Your task to perform on an android device: turn off improve location accuracy Image 0: 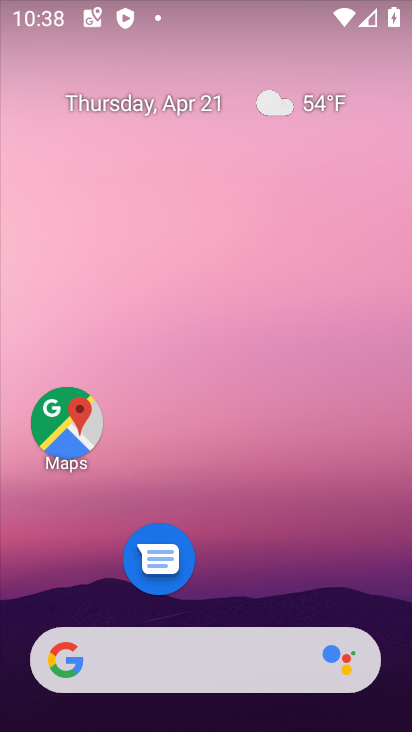
Step 0: drag from (283, 551) to (306, 92)
Your task to perform on an android device: turn off improve location accuracy Image 1: 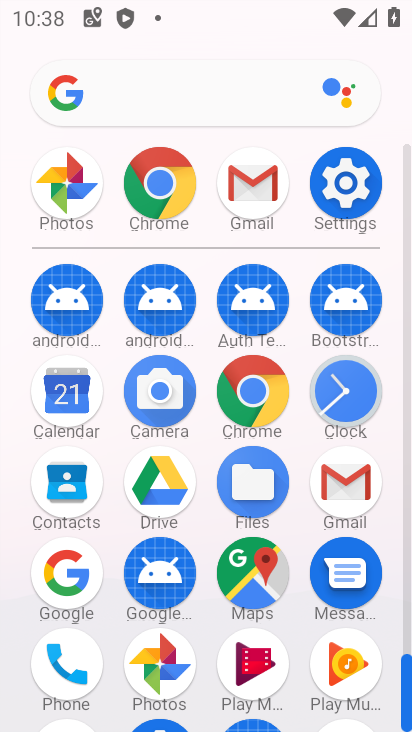
Step 1: click (333, 176)
Your task to perform on an android device: turn off improve location accuracy Image 2: 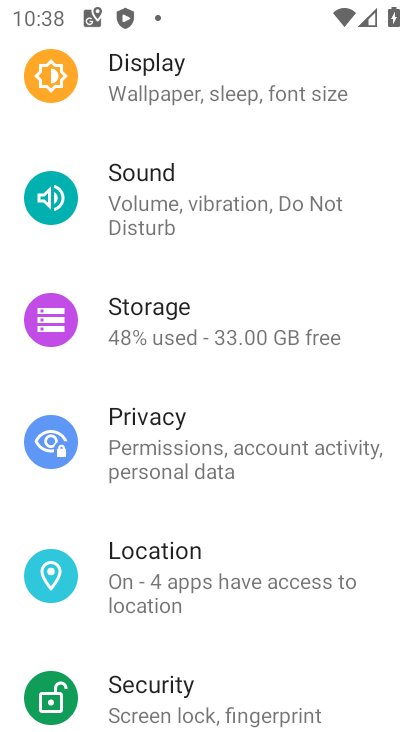
Step 2: click (194, 552)
Your task to perform on an android device: turn off improve location accuracy Image 3: 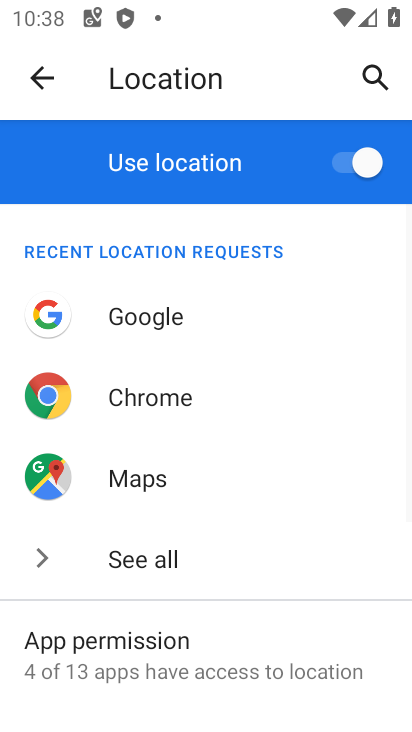
Step 3: drag from (168, 654) to (226, 202)
Your task to perform on an android device: turn off improve location accuracy Image 4: 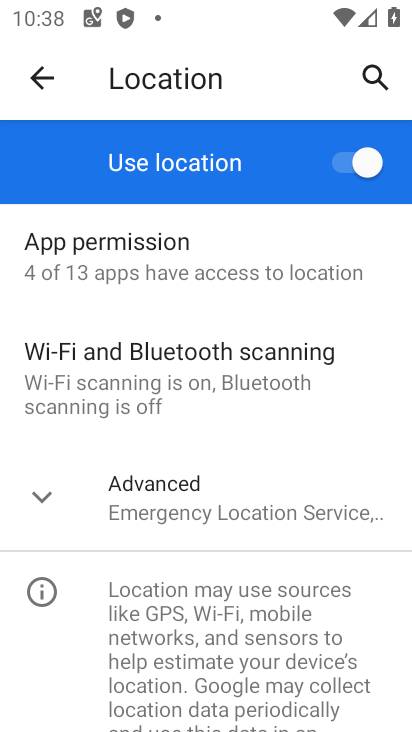
Step 4: click (229, 502)
Your task to perform on an android device: turn off improve location accuracy Image 5: 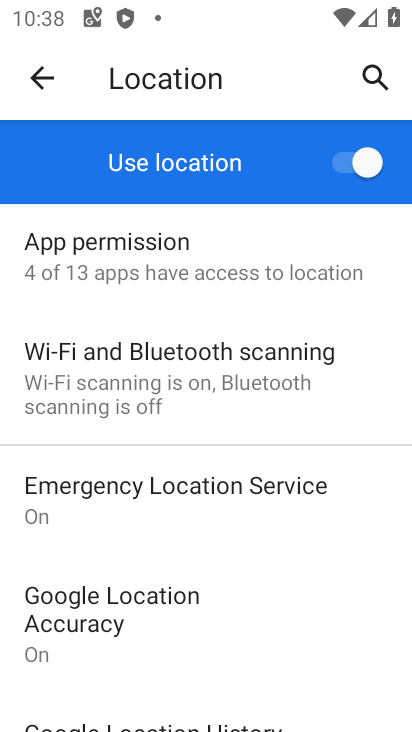
Step 5: click (123, 611)
Your task to perform on an android device: turn off improve location accuracy Image 6: 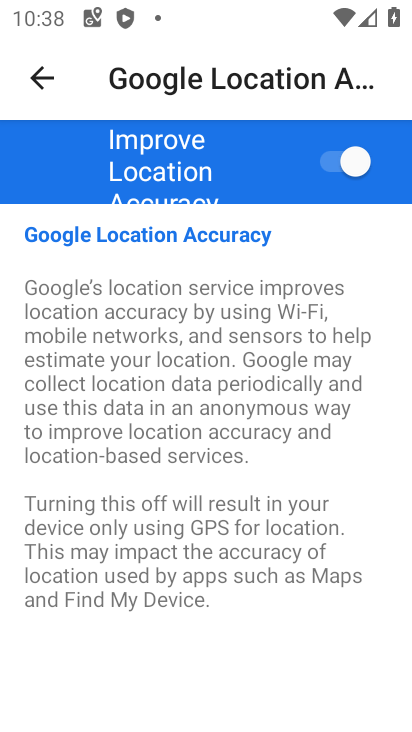
Step 6: click (351, 158)
Your task to perform on an android device: turn off improve location accuracy Image 7: 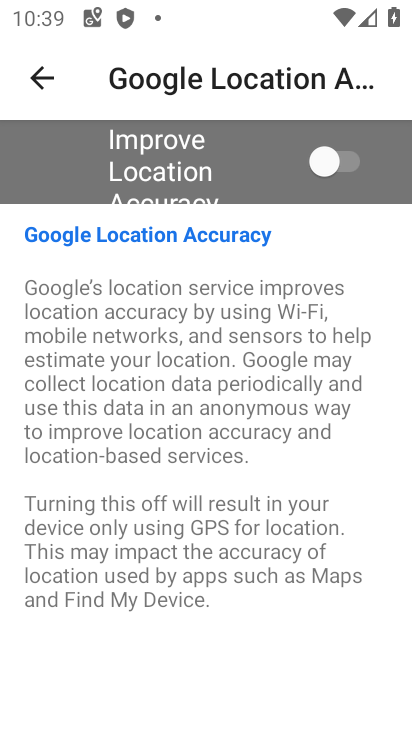
Step 7: task complete